Your task to perform on an android device: Open ESPN.com Image 0: 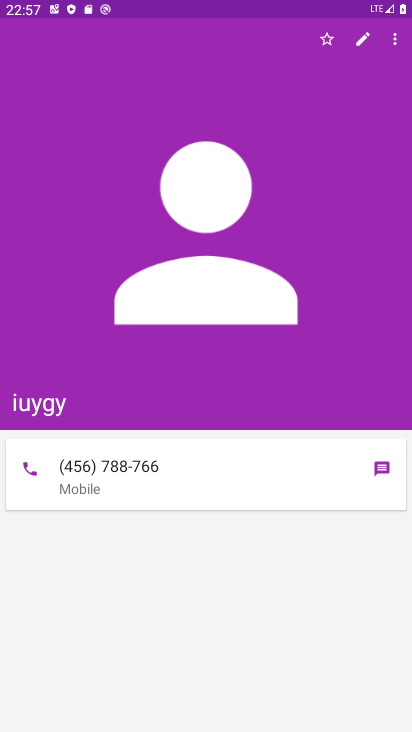
Step 0: press home button
Your task to perform on an android device: Open ESPN.com Image 1: 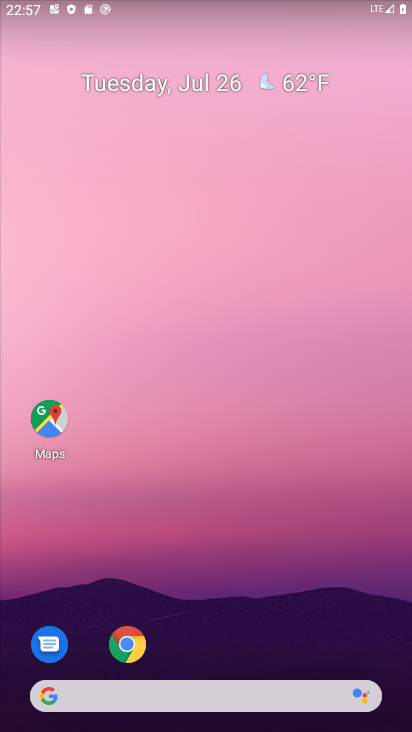
Step 1: click (127, 634)
Your task to perform on an android device: Open ESPN.com Image 2: 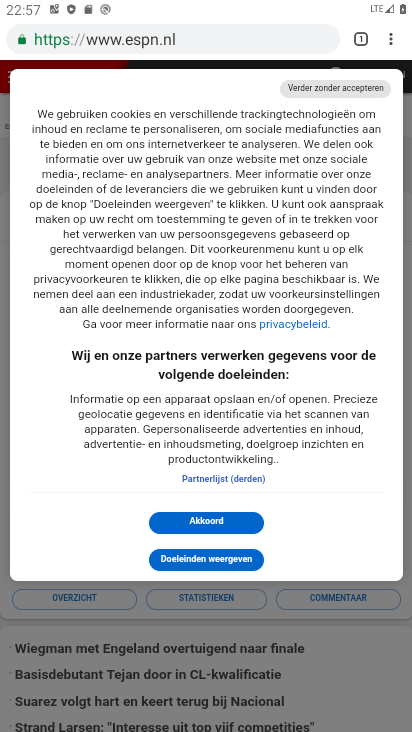
Step 2: task complete